Your task to perform on an android device: How much does a 2x4x8 board cost at Lowes? Image 0: 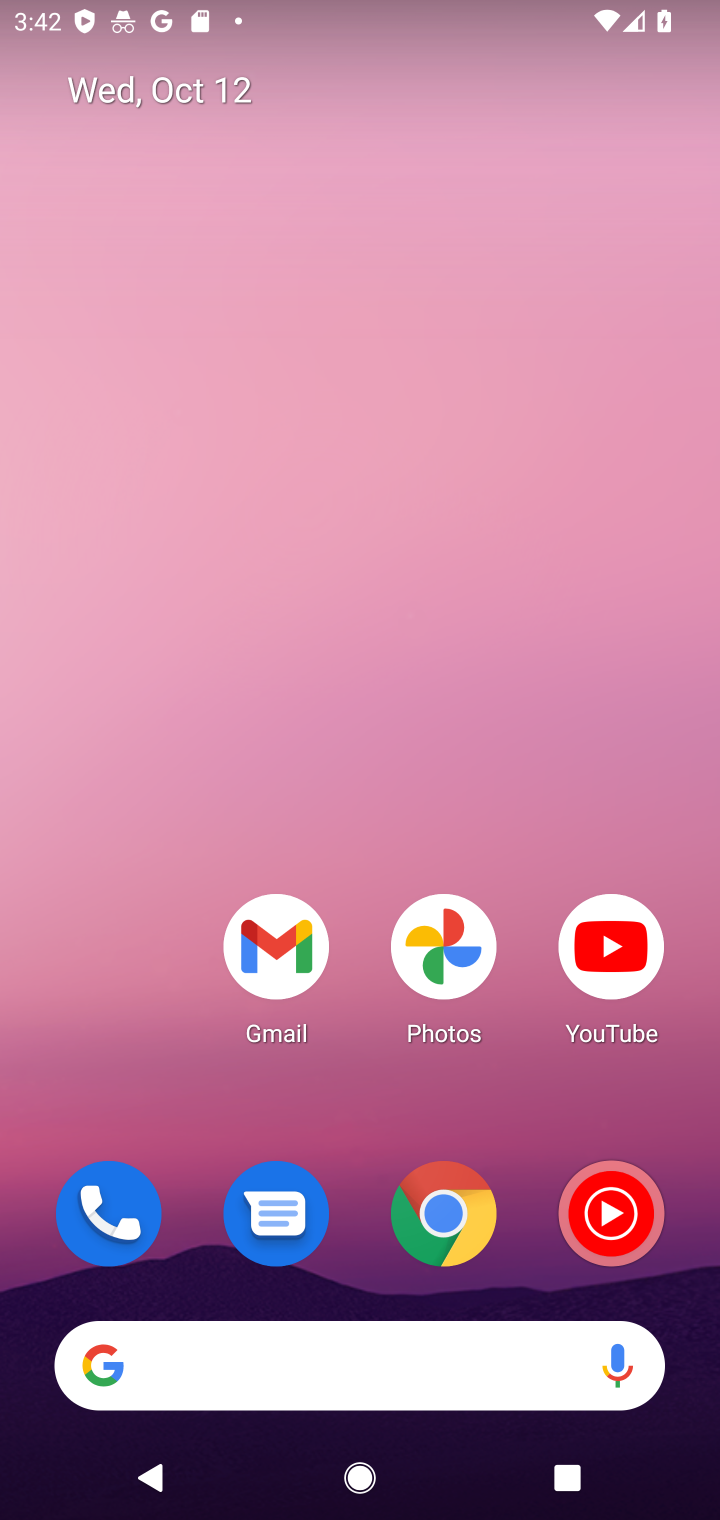
Step 0: click (268, 1363)
Your task to perform on an android device: How much does a 2x4x8 board cost at Lowes? Image 1: 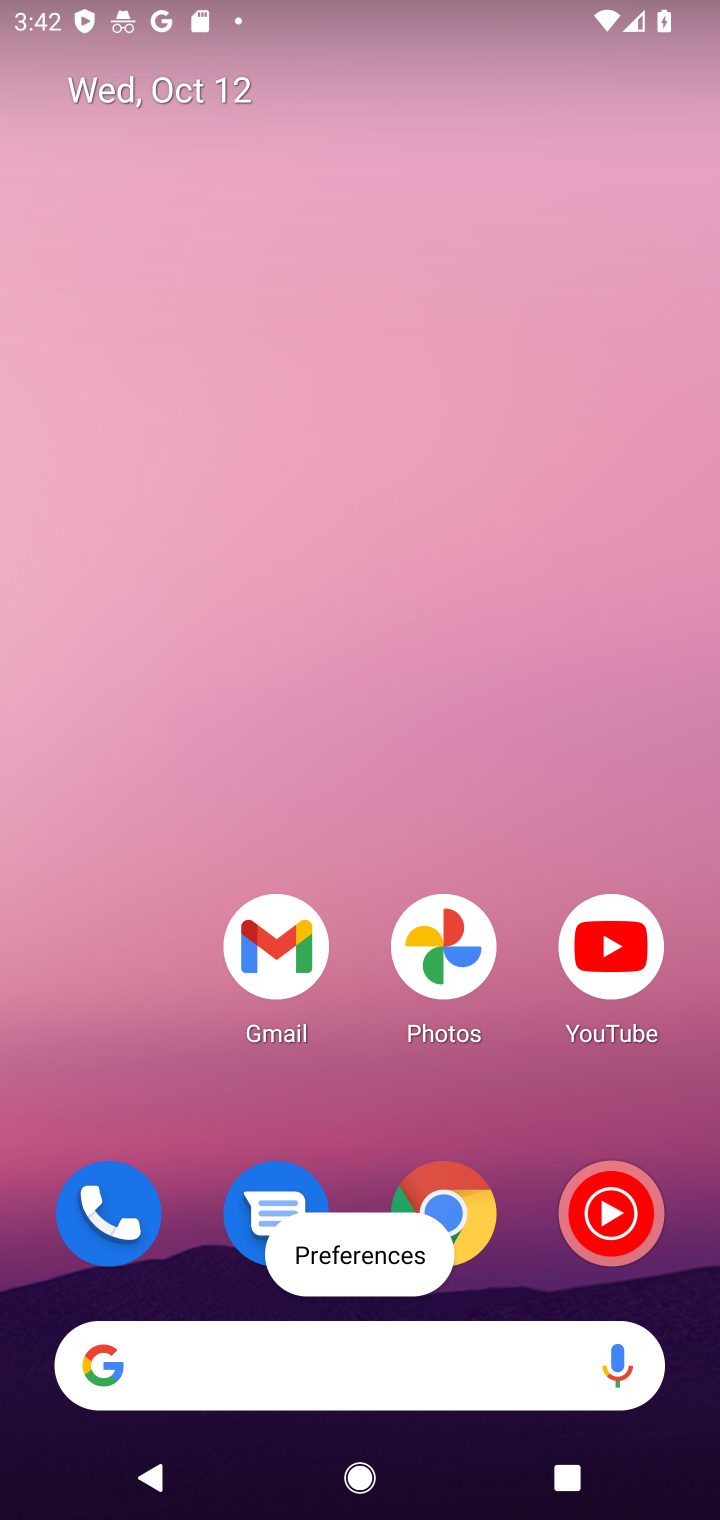
Step 1: click (309, 1379)
Your task to perform on an android device: How much does a 2x4x8 board cost at Lowes? Image 2: 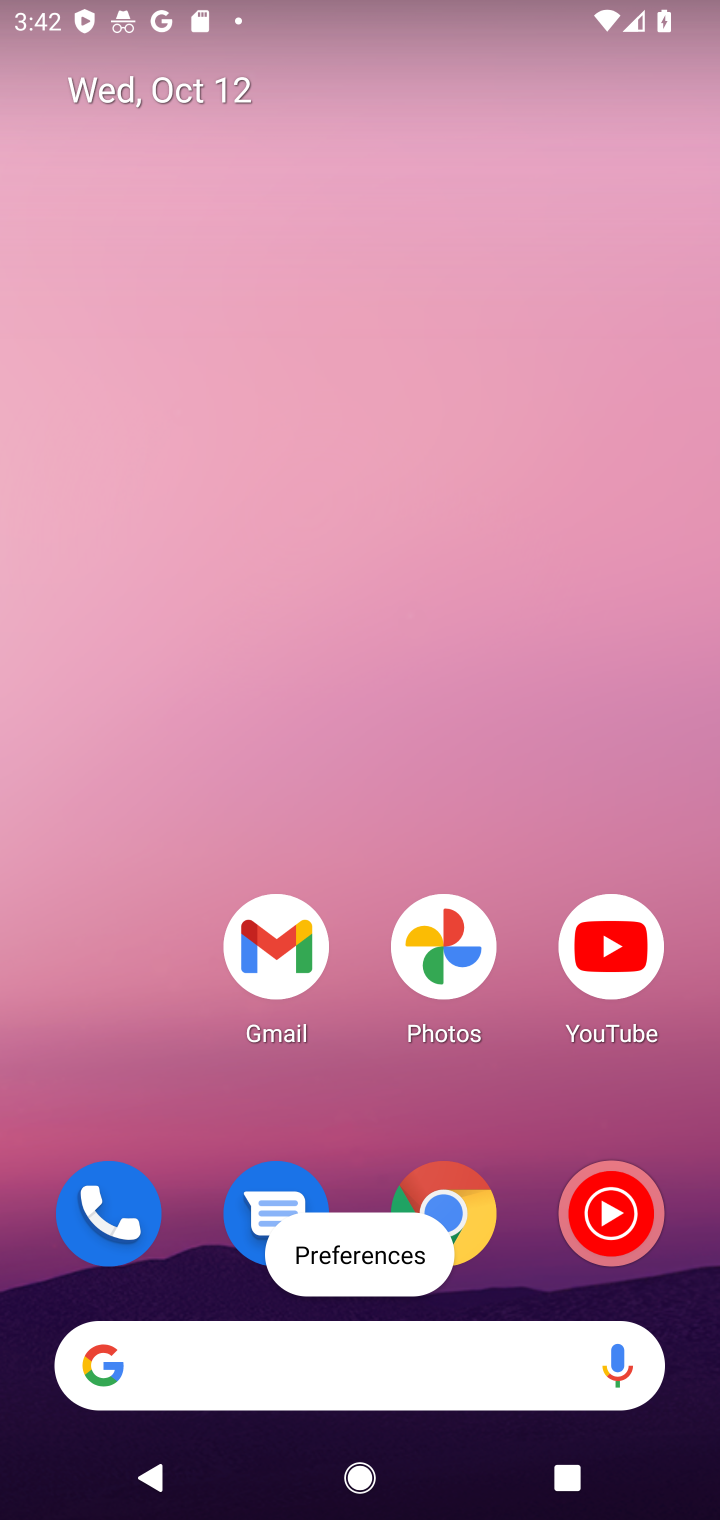
Step 2: click (309, 1379)
Your task to perform on an android device: How much does a 2x4x8 board cost at Lowes? Image 3: 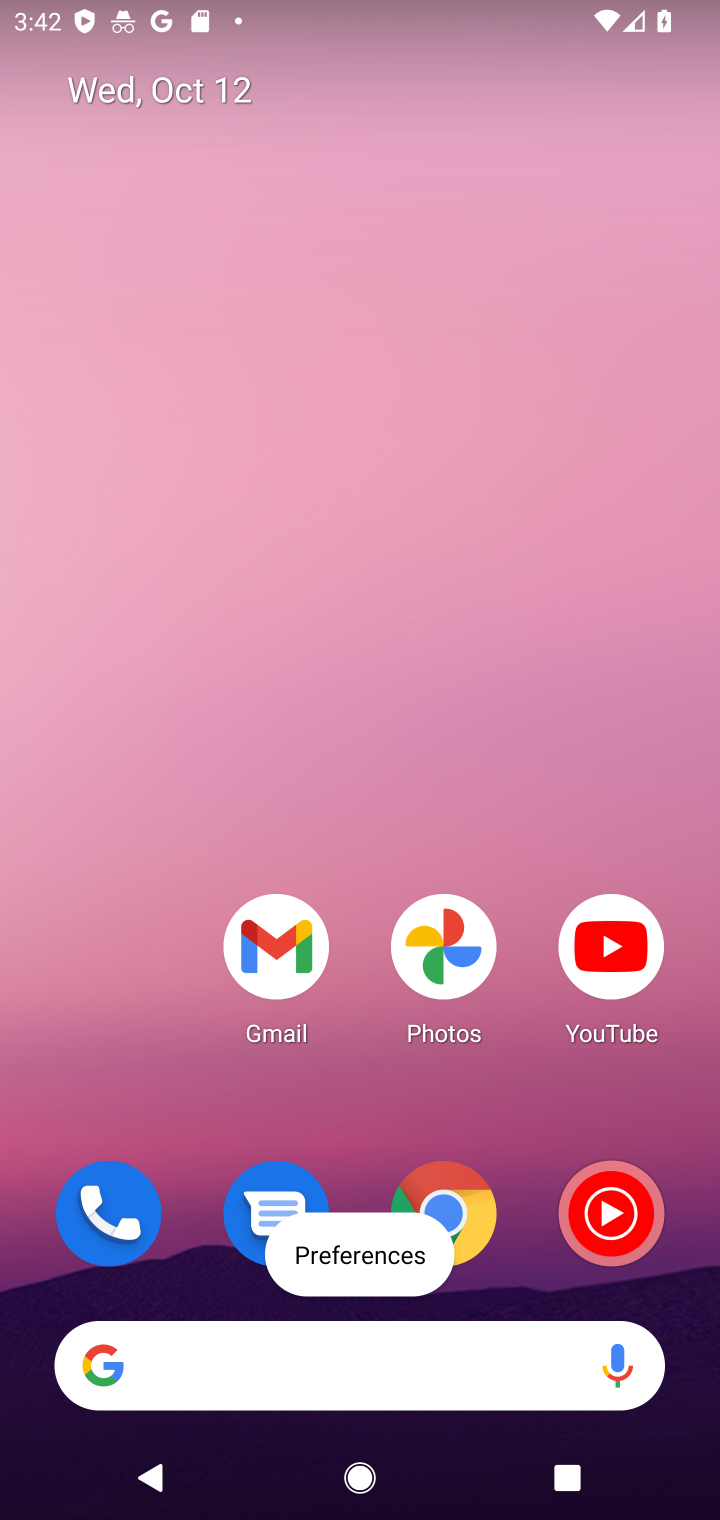
Step 3: click (254, 1346)
Your task to perform on an android device: How much does a 2x4x8 board cost at Lowes? Image 4: 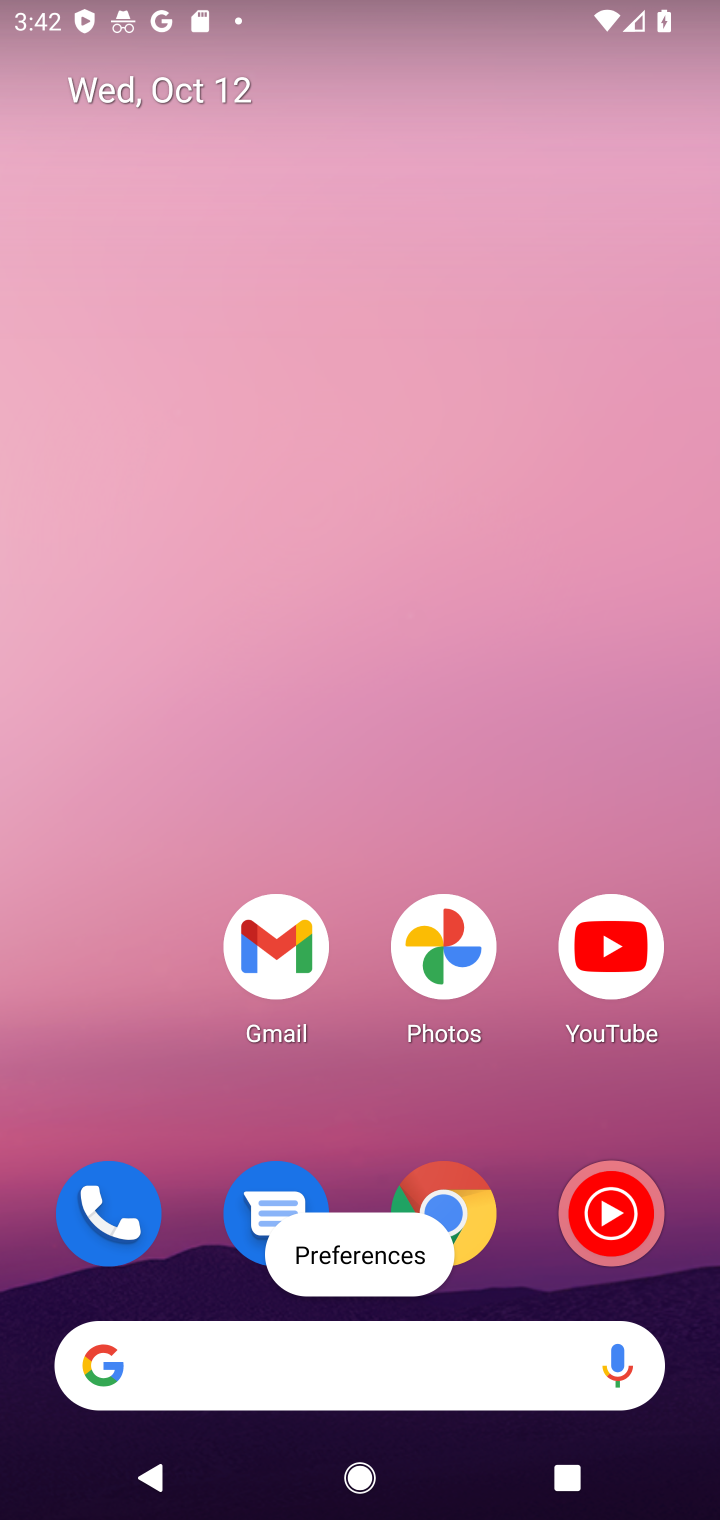
Step 4: click (343, 1382)
Your task to perform on an android device: How much does a 2x4x8 board cost at Lowes? Image 5: 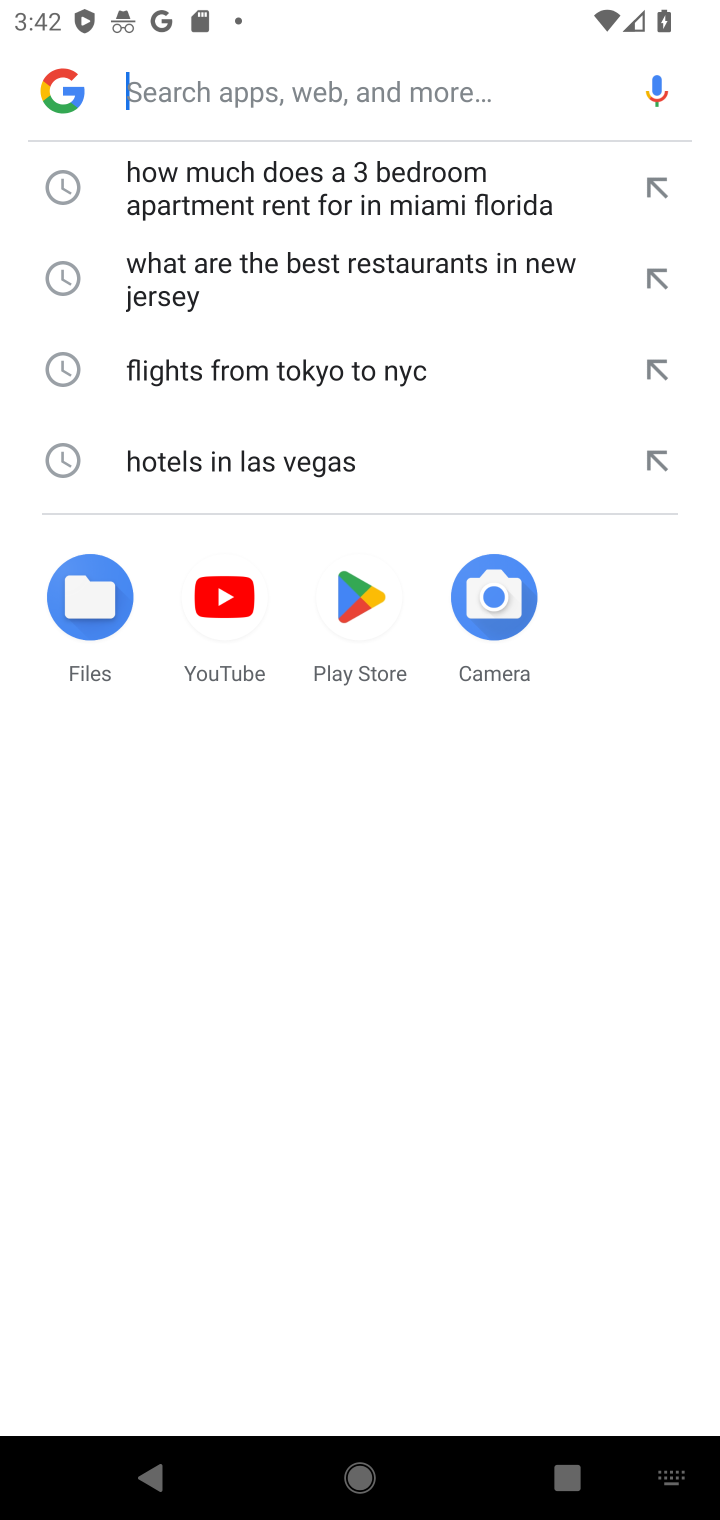
Step 5: click (218, 103)
Your task to perform on an android device: How much does a 2x4x8 board cost at Lowes? Image 6: 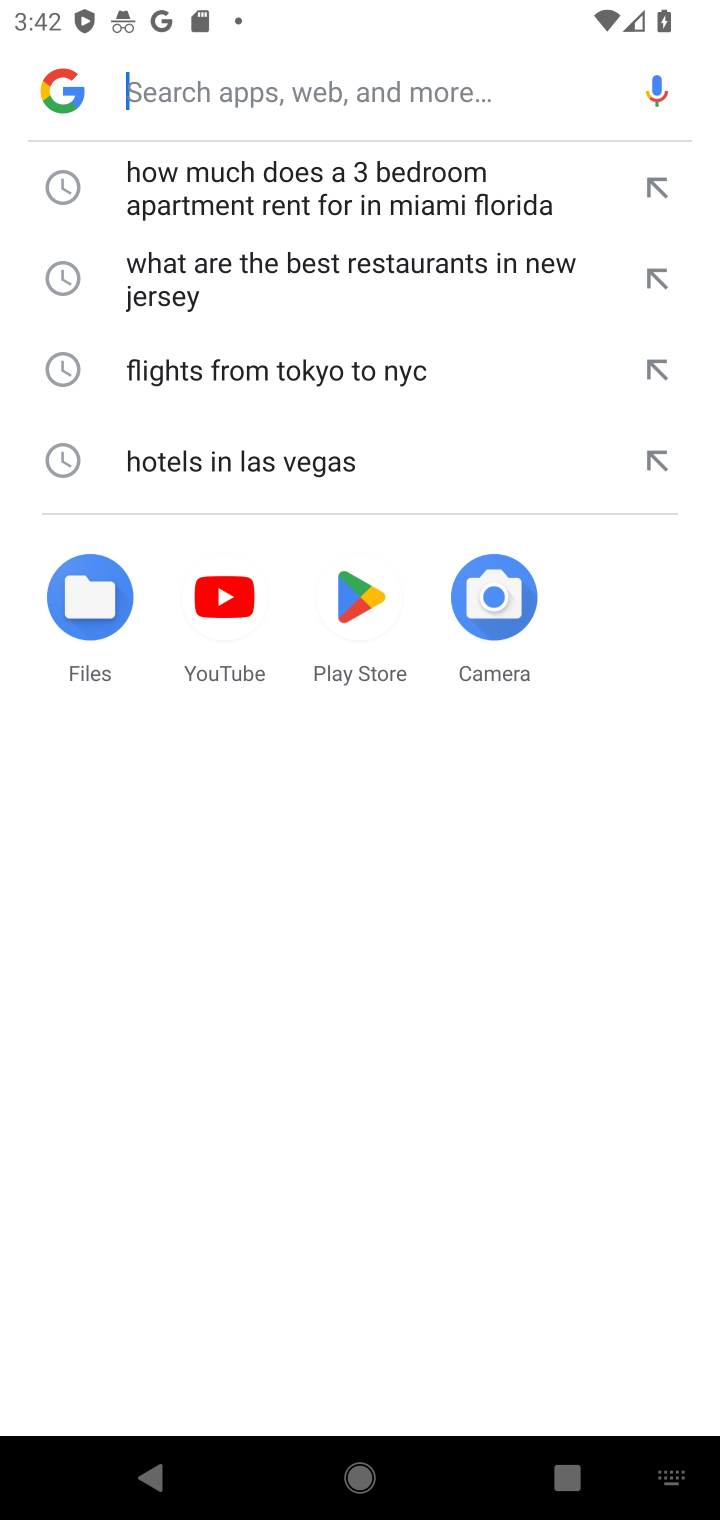
Step 6: click (155, 88)
Your task to perform on an android device: How much does a 2x4x8 board cost at Lowes? Image 7: 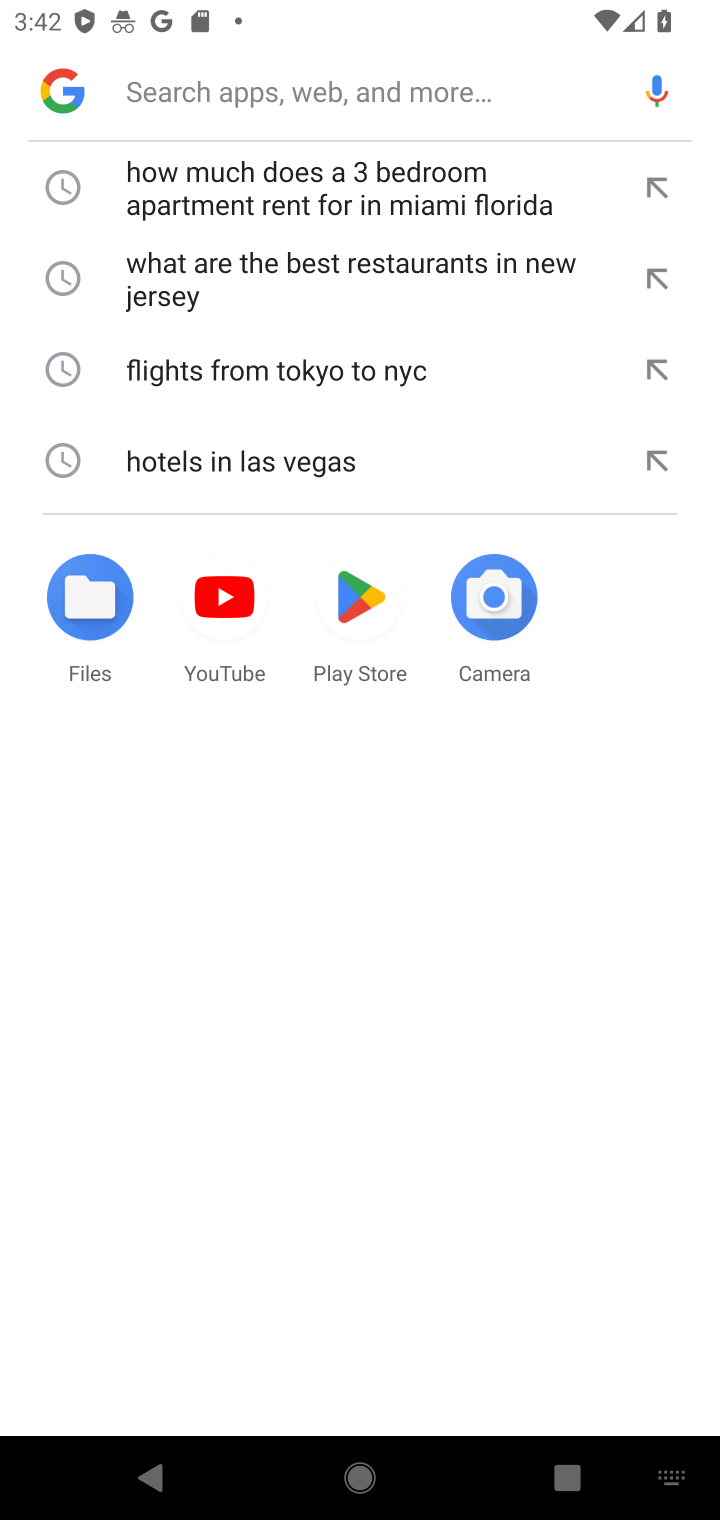
Step 7: type "How much does a 2x4x8 board cost at Lowes?"
Your task to perform on an android device: How much does a 2x4x8 board cost at Lowes? Image 8: 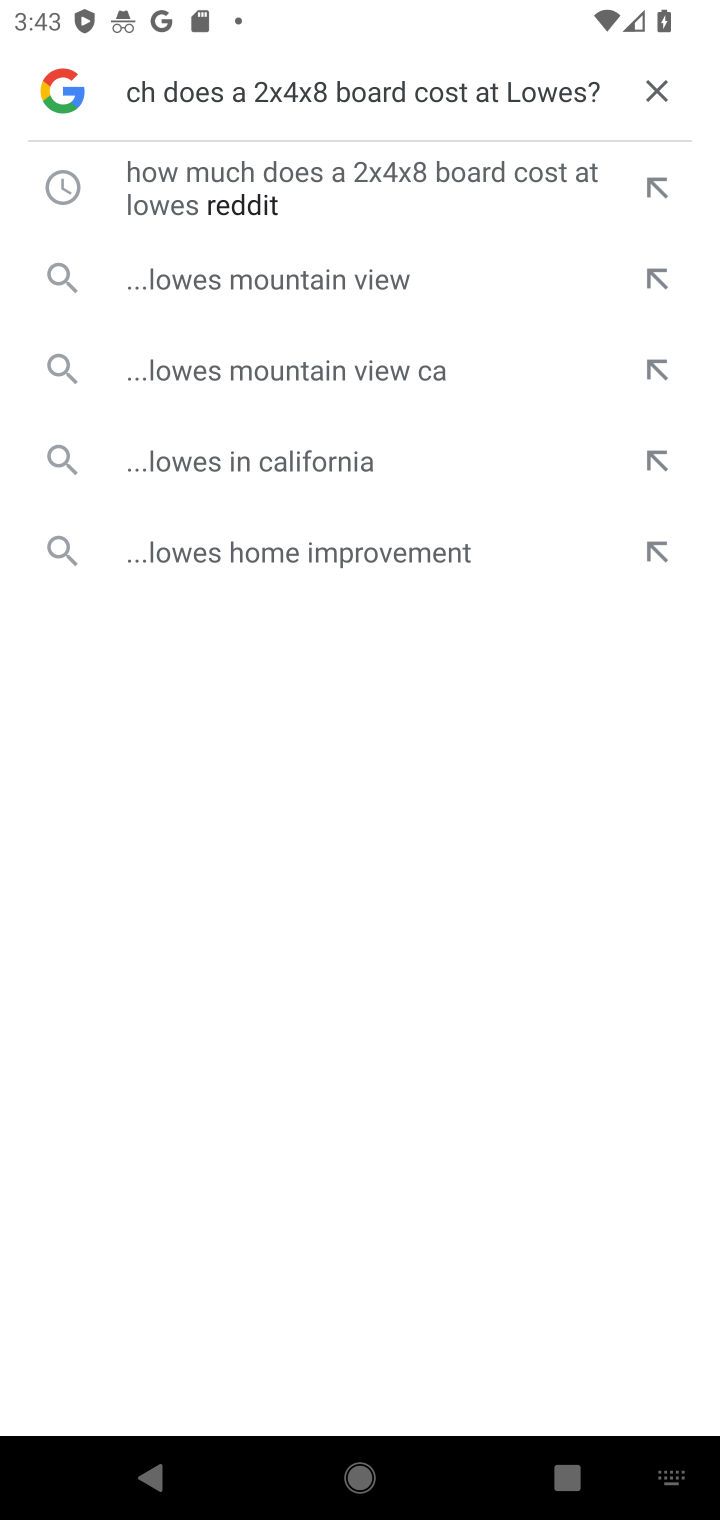
Step 8: click (369, 228)
Your task to perform on an android device: How much does a 2x4x8 board cost at Lowes? Image 9: 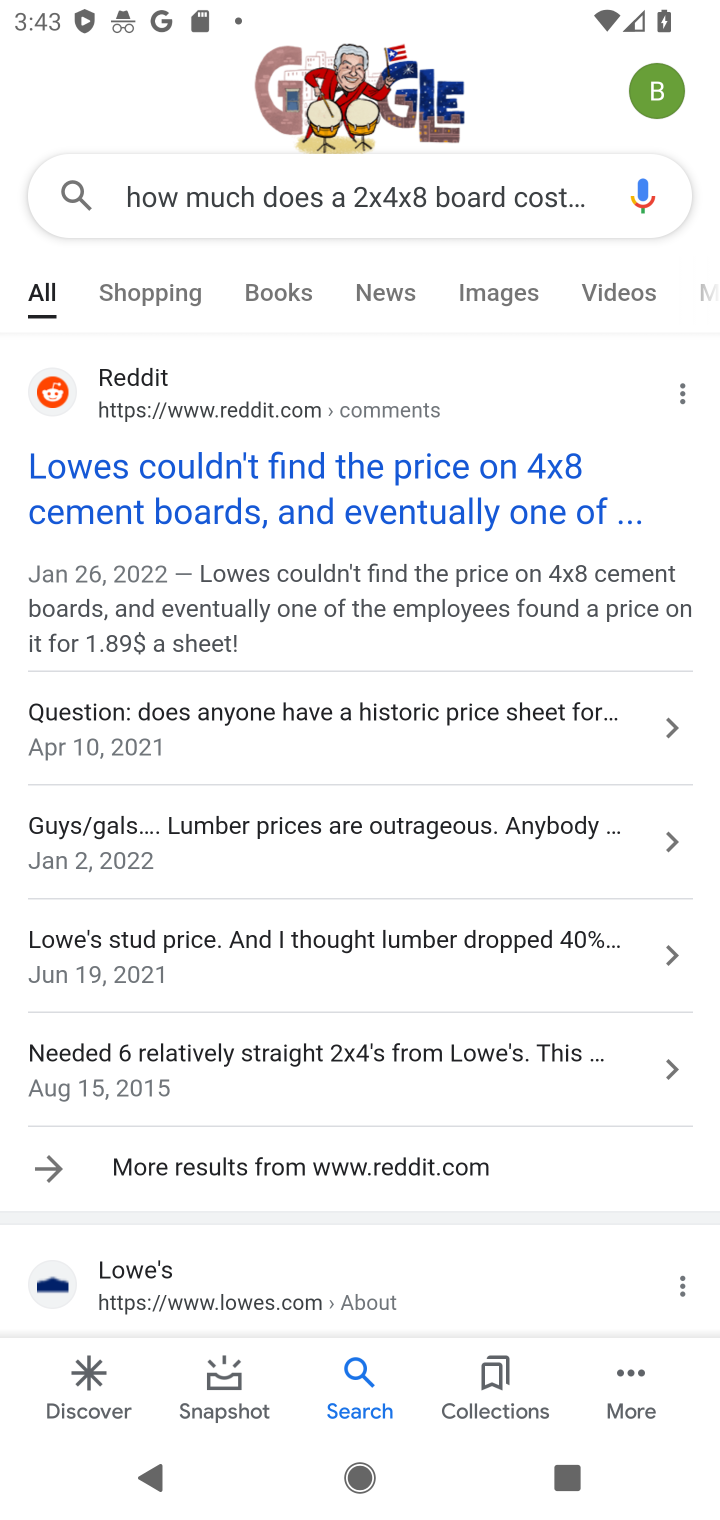
Step 9: click (322, 469)
Your task to perform on an android device: How much does a 2x4x8 board cost at Lowes? Image 10: 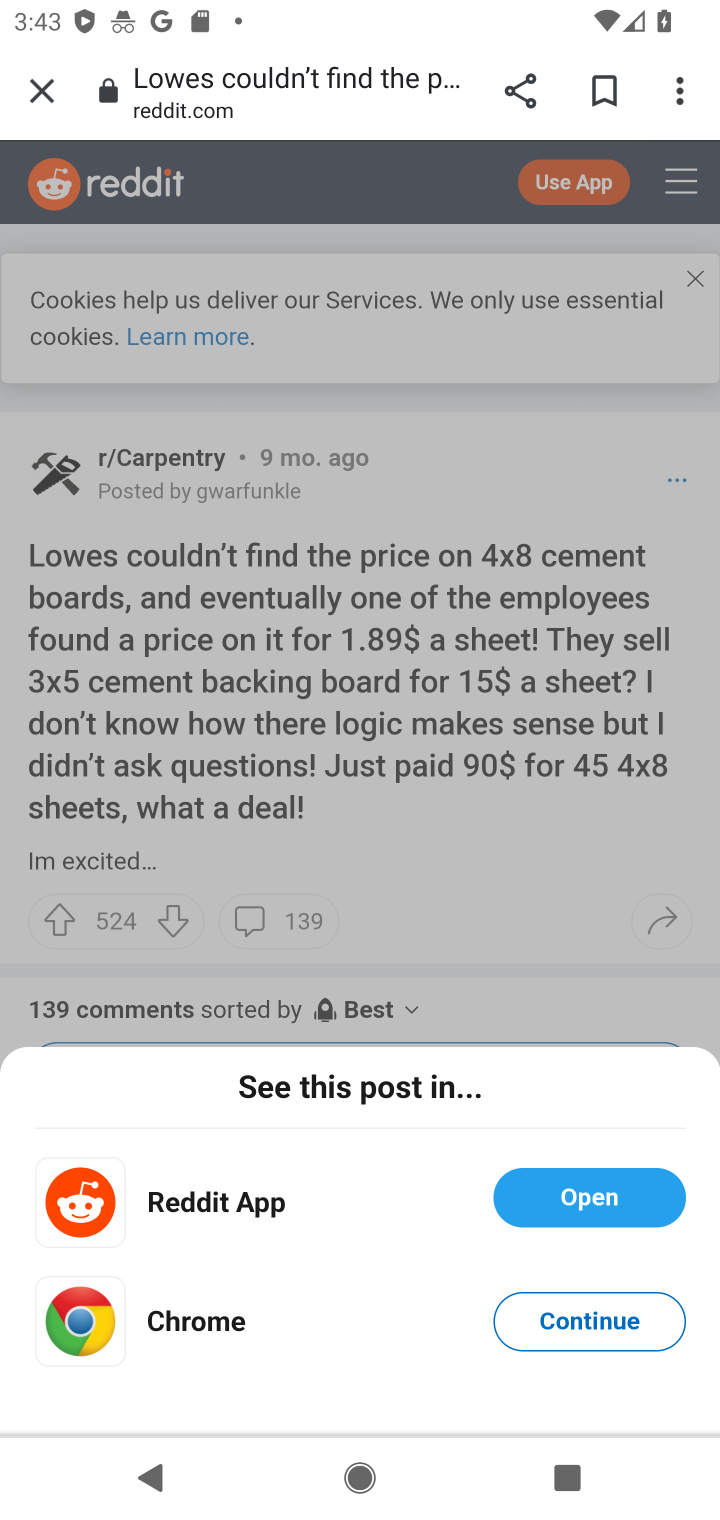
Step 10: task complete